Your task to perform on an android device: toggle translation in the chrome app Image 0: 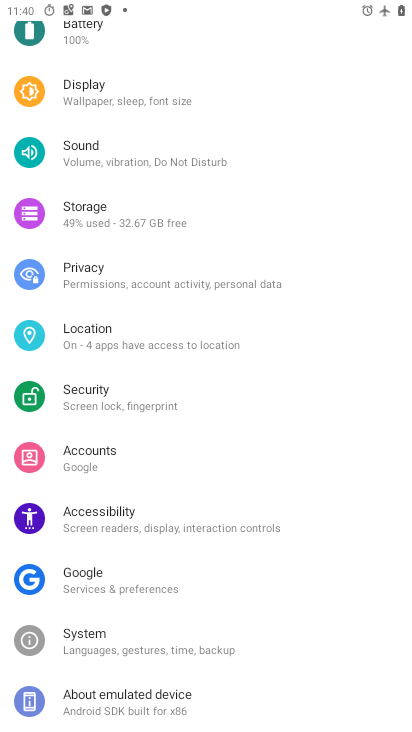
Step 0: press home button
Your task to perform on an android device: toggle translation in the chrome app Image 1: 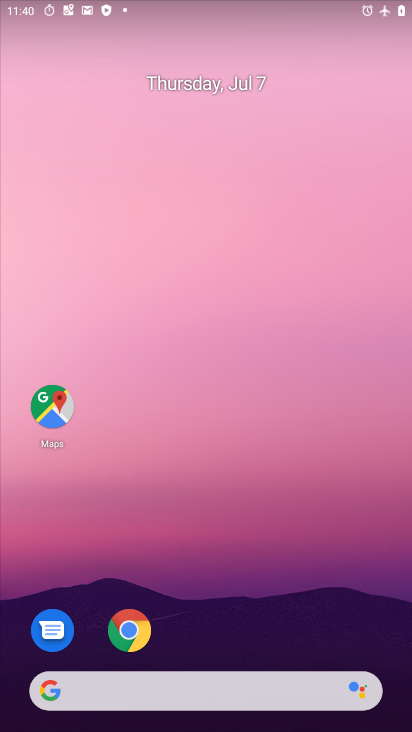
Step 1: click (130, 634)
Your task to perform on an android device: toggle translation in the chrome app Image 2: 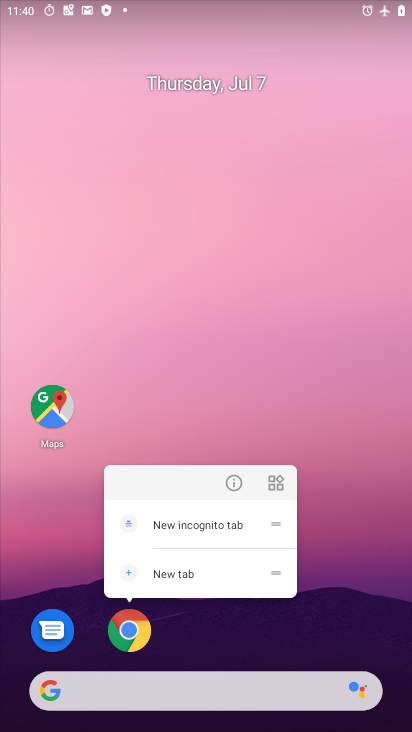
Step 2: click (122, 626)
Your task to perform on an android device: toggle translation in the chrome app Image 3: 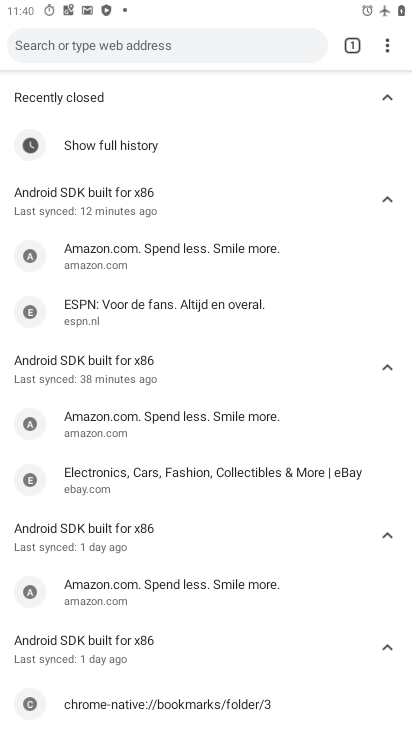
Step 3: click (386, 53)
Your task to perform on an android device: toggle translation in the chrome app Image 4: 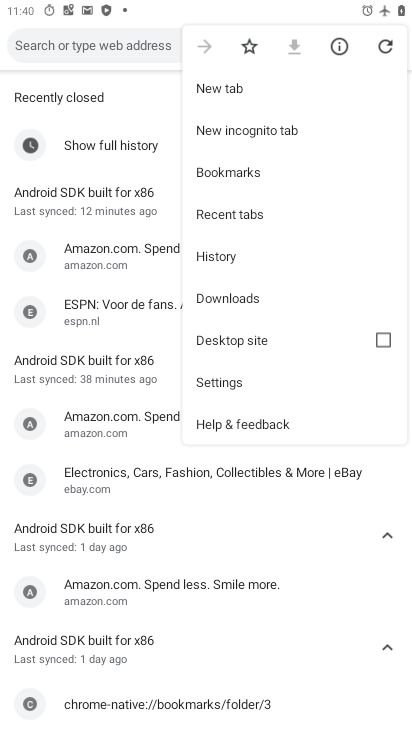
Step 4: click (252, 383)
Your task to perform on an android device: toggle translation in the chrome app Image 5: 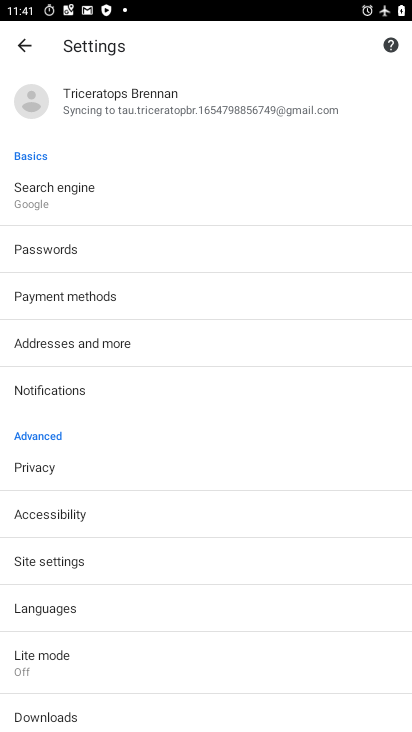
Step 5: click (84, 610)
Your task to perform on an android device: toggle translation in the chrome app Image 6: 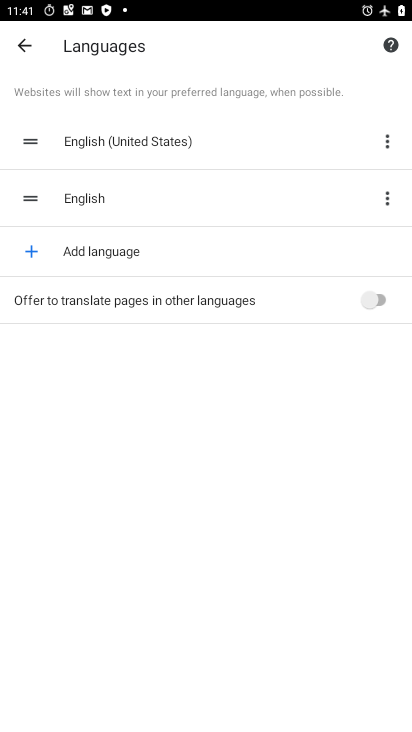
Step 6: click (383, 296)
Your task to perform on an android device: toggle translation in the chrome app Image 7: 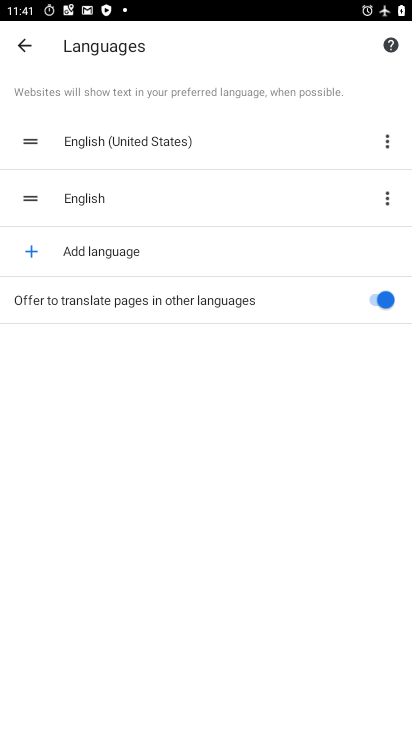
Step 7: task complete